Your task to perform on an android device: change the clock display to show seconds Image 0: 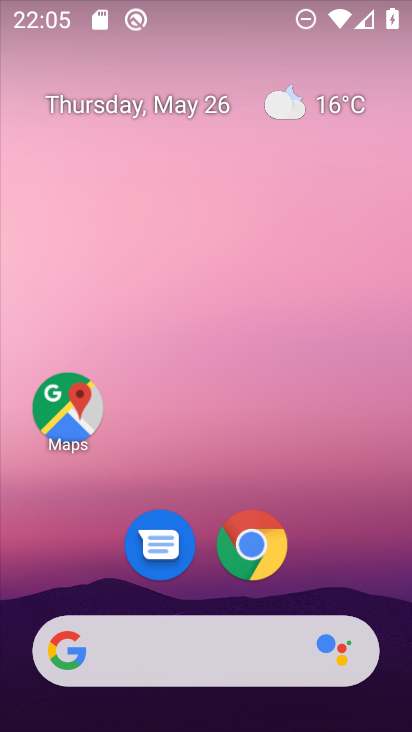
Step 0: drag from (315, 576) to (303, 69)
Your task to perform on an android device: change the clock display to show seconds Image 1: 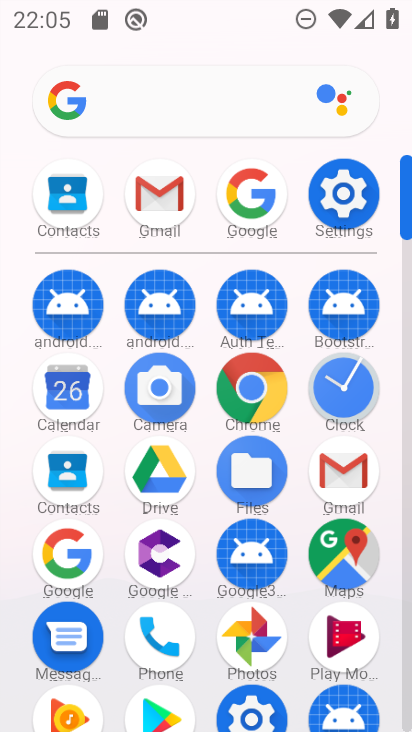
Step 1: click (343, 385)
Your task to perform on an android device: change the clock display to show seconds Image 2: 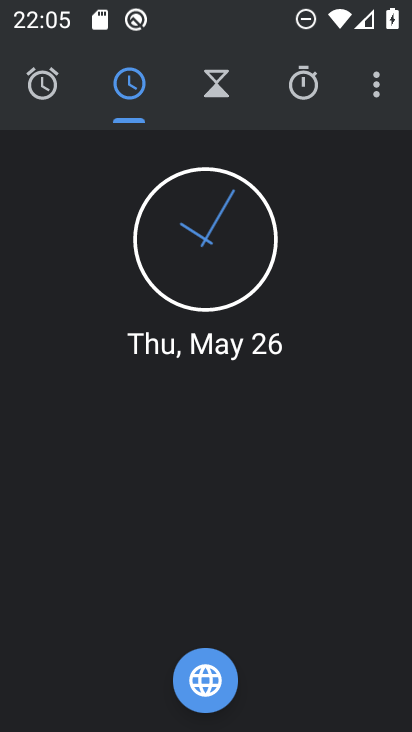
Step 2: click (370, 73)
Your task to perform on an android device: change the clock display to show seconds Image 3: 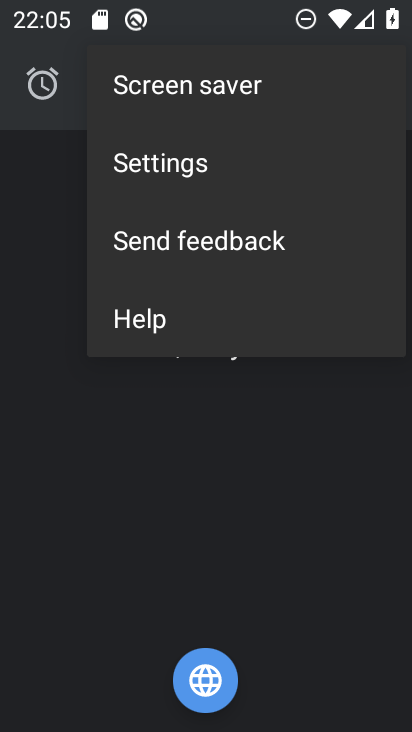
Step 3: click (188, 183)
Your task to perform on an android device: change the clock display to show seconds Image 4: 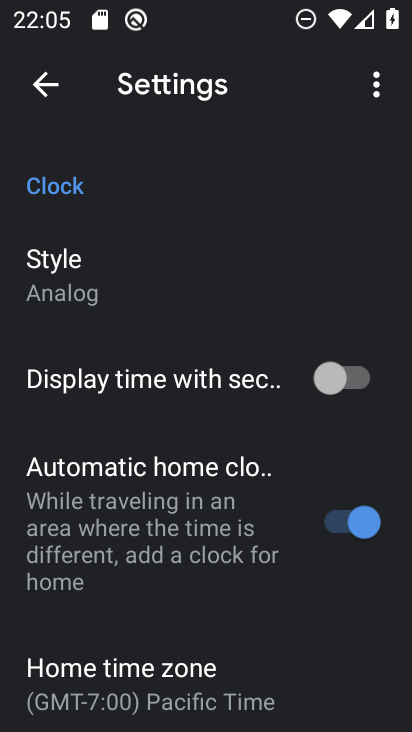
Step 4: click (332, 381)
Your task to perform on an android device: change the clock display to show seconds Image 5: 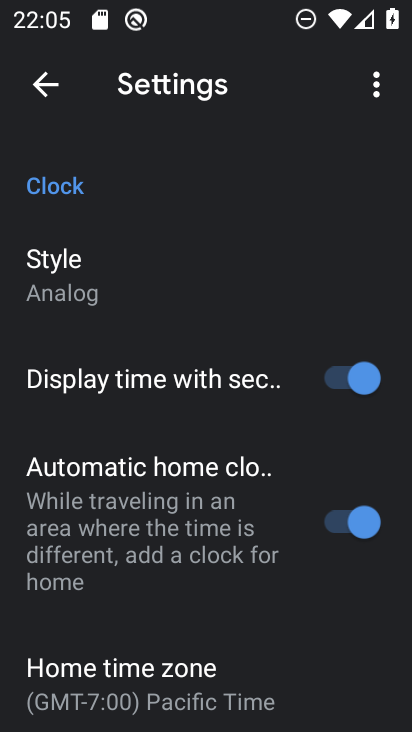
Step 5: task complete